Your task to perform on an android device: When is my next appointment? Image 0: 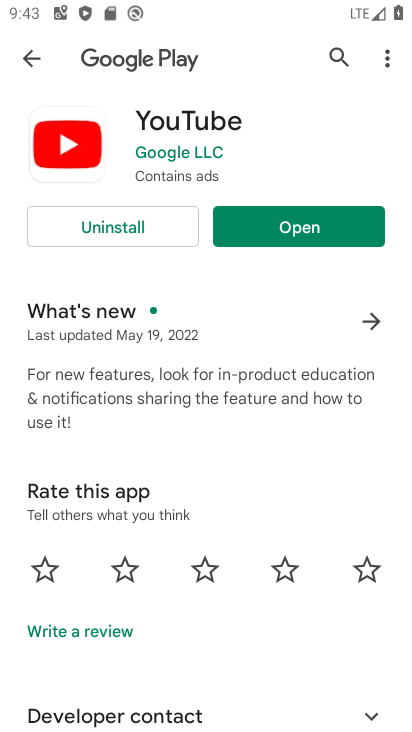
Step 0: press home button
Your task to perform on an android device: When is my next appointment? Image 1: 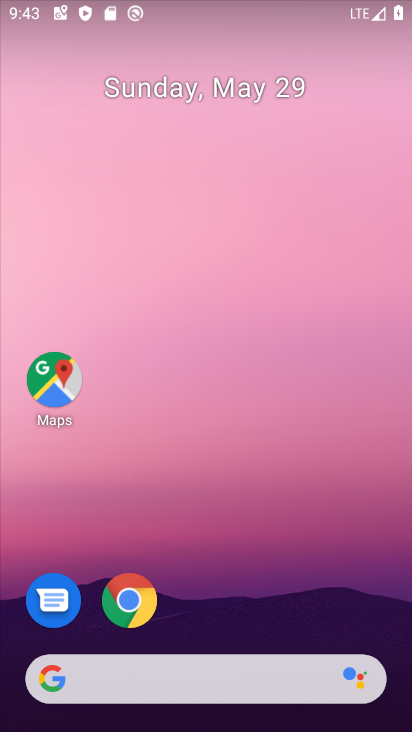
Step 1: drag from (261, 623) to (273, 134)
Your task to perform on an android device: When is my next appointment? Image 2: 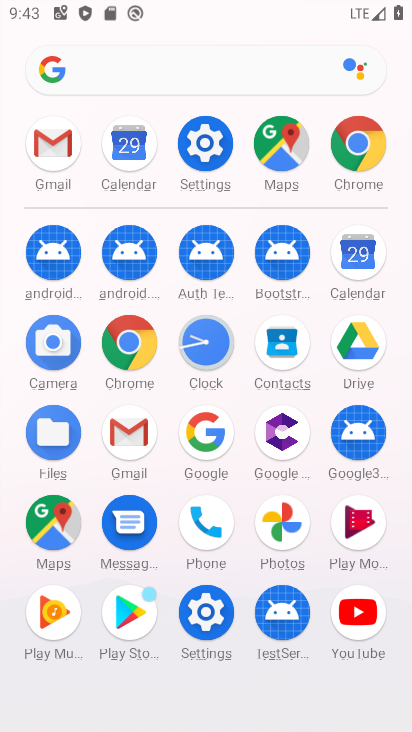
Step 2: click (132, 139)
Your task to perform on an android device: When is my next appointment? Image 3: 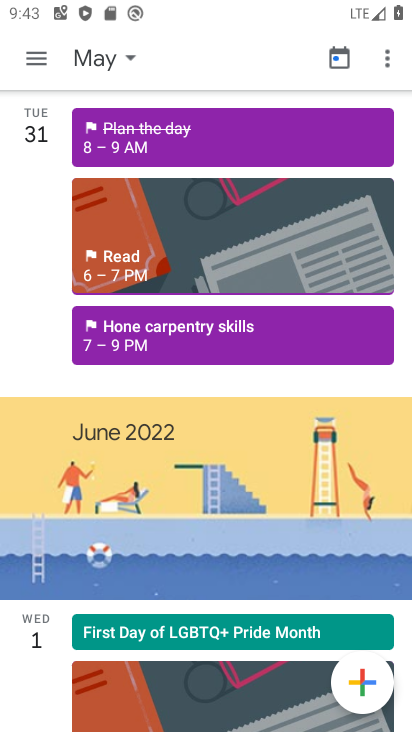
Step 3: click (108, 57)
Your task to perform on an android device: When is my next appointment? Image 4: 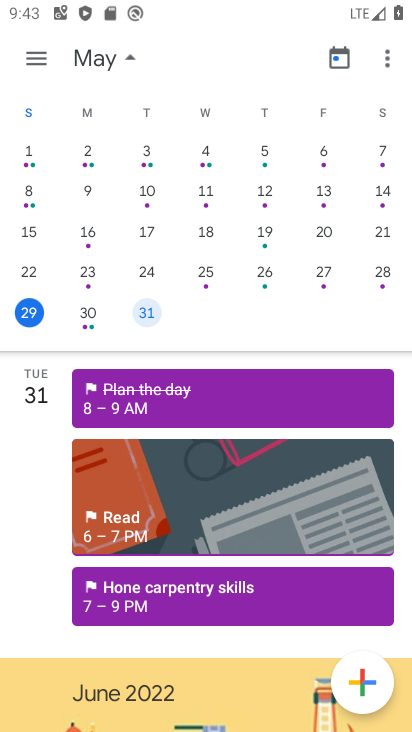
Step 4: click (96, 310)
Your task to perform on an android device: When is my next appointment? Image 5: 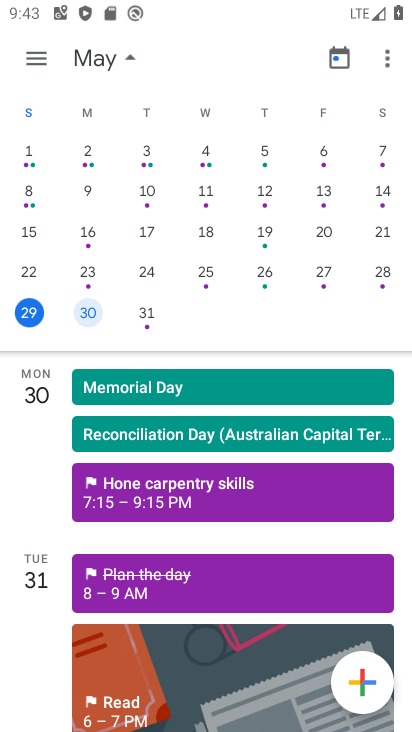
Step 5: task complete